Your task to perform on an android device: toggle translation in the chrome app Image 0: 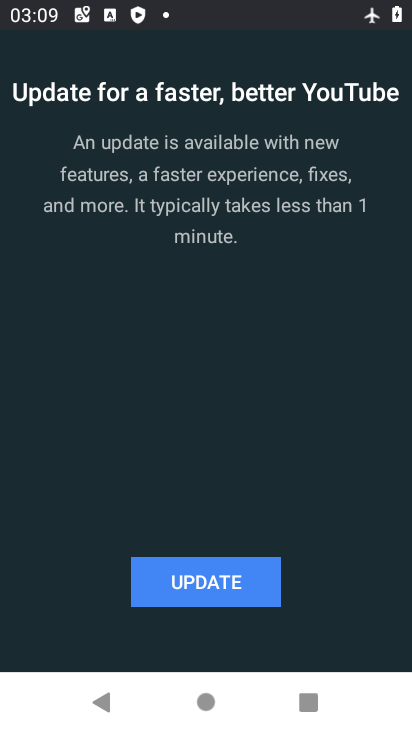
Step 0: press home button
Your task to perform on an android device: toggle translation in the chrome app Image 1: 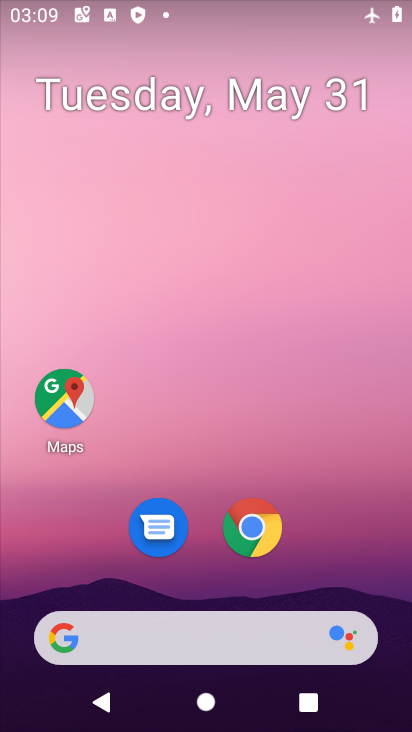
Step 1: click (265, 532)
Your task to perform on an android device: toggle translation in the chrome app Image 2: 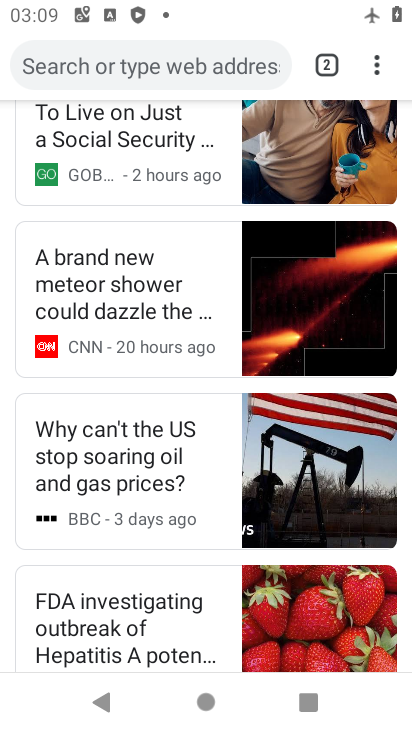
Step 2: click (376, 71)
Your task to perform on an android device: toggle translation in the chrome app Image 3: 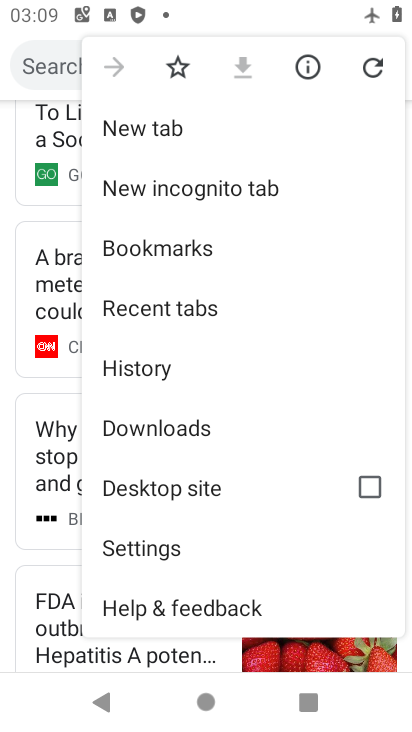
Step 3: click (164, 548)
Your task to perform on an android device: toggle translation in the chrome app Image 4: 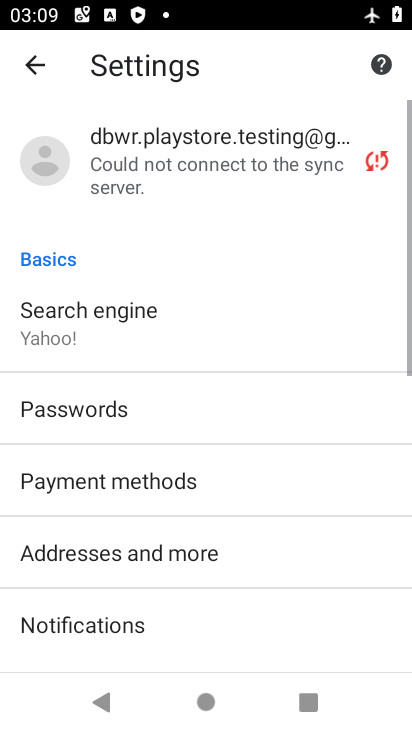
Step 4: drag from (169, 607) to (241, 230)
Your task to perform on an android device: toggle translation in the chrome app Image 5: 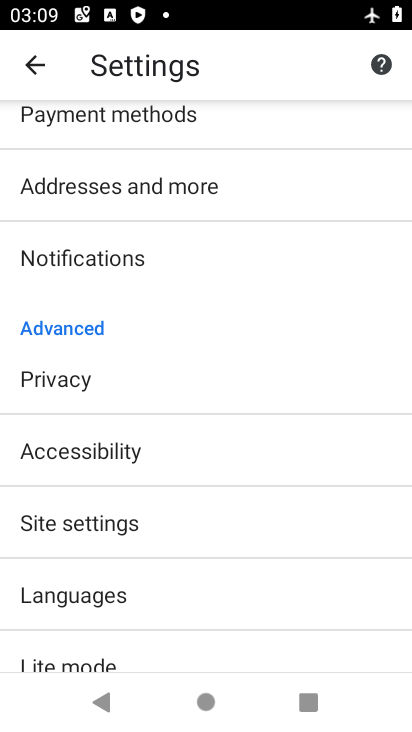
Step 5: click (113, 601)
Your task to perform on an android device: toggle translation in the chrome app Image 6: 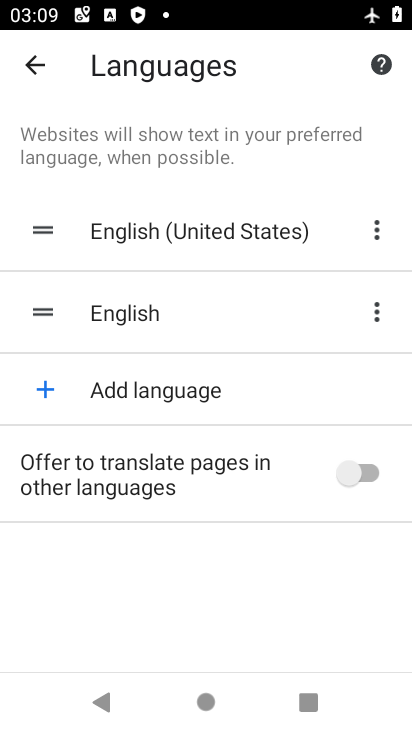
Step 6: click (372, 470)
Your task to perform on an android device: toggle translation in the chrome app Image 7: 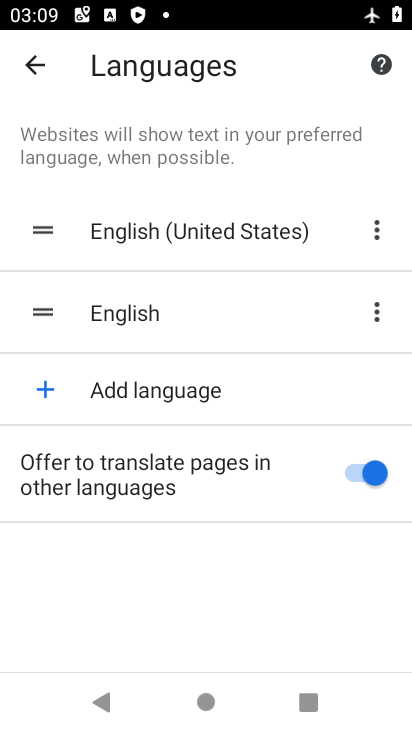
Step 7: task complete